Your task to perform on an android device: turn off translation in the chrome app Image 0: 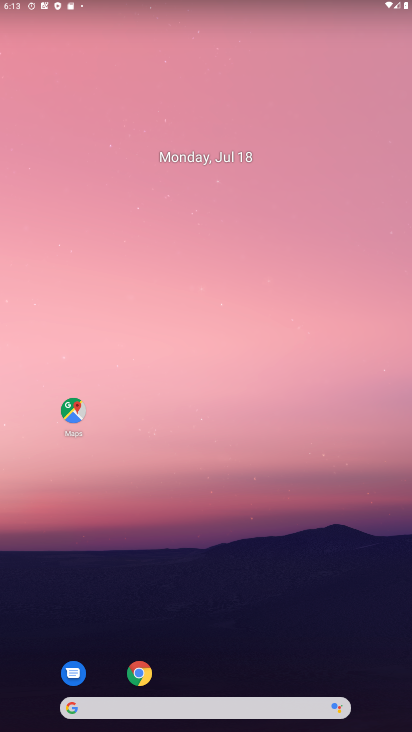
Step 0: click (131, 668)
Your task to perform on an android device: turn off translation in the chrome app Image 1: 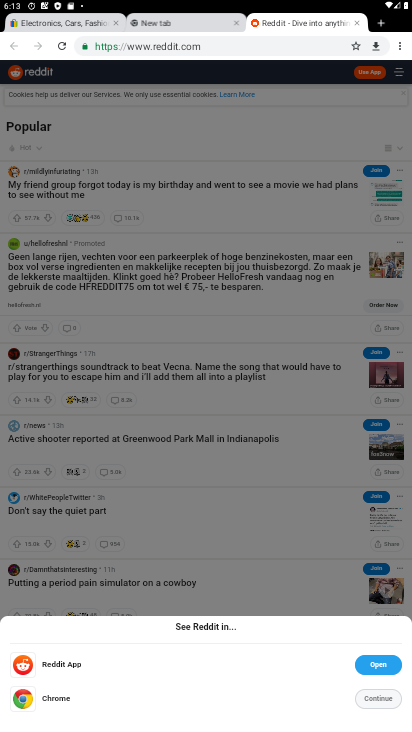
Step 1: click (398, 48)
Your task to perform on an android device: turn off translation in the chrome app Image 2: 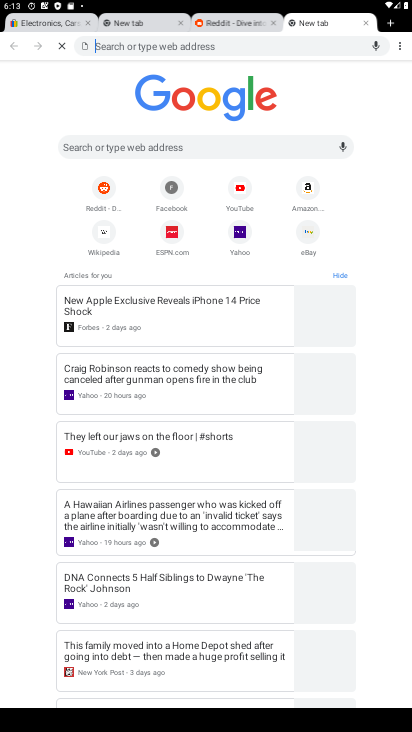
Step 2: click (397, 49)
Your task to perform on an android device: turn off translation in the chrome app Image 3: 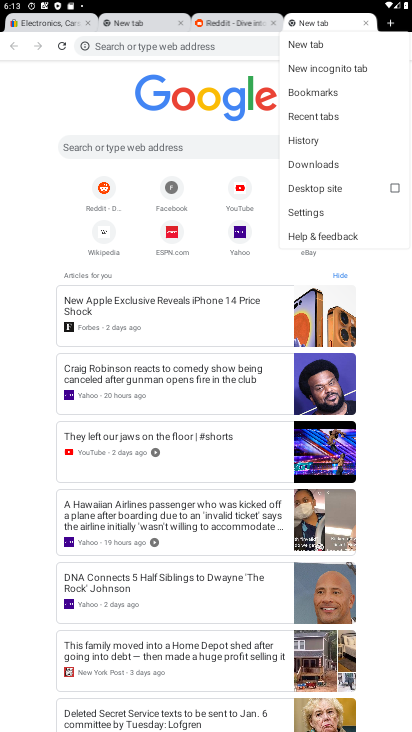
Step 3: click (311, 210)
Your task to perform on an android device: turn off translation in the chrome app Image 4: 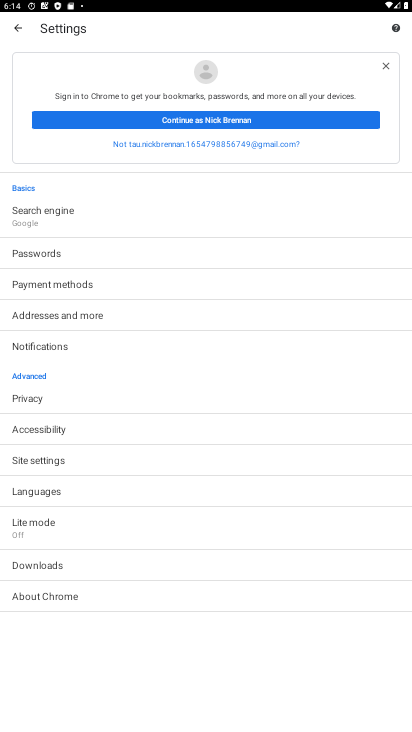
Step 4: click (53, 492)
Your task to perform on an android device: turn off translation in the chrome app Image 5: 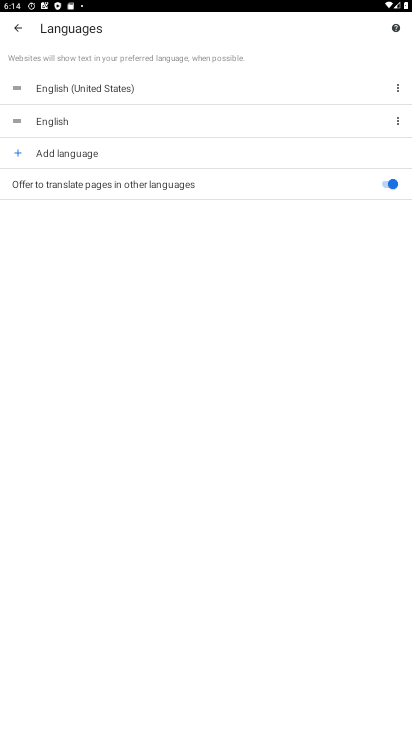
Step 5: click (15, 27)
Your task to perform on an android device: turn off translation in the chrome app Image 6: 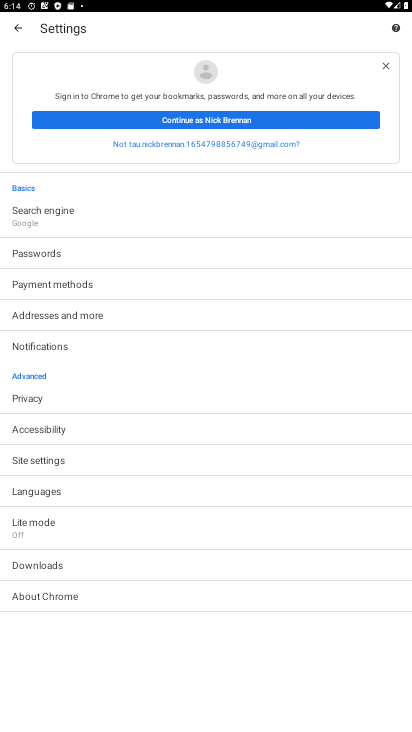
Step 6: task complete